Your task to perform on an android device: Go to notification settings Image 0: 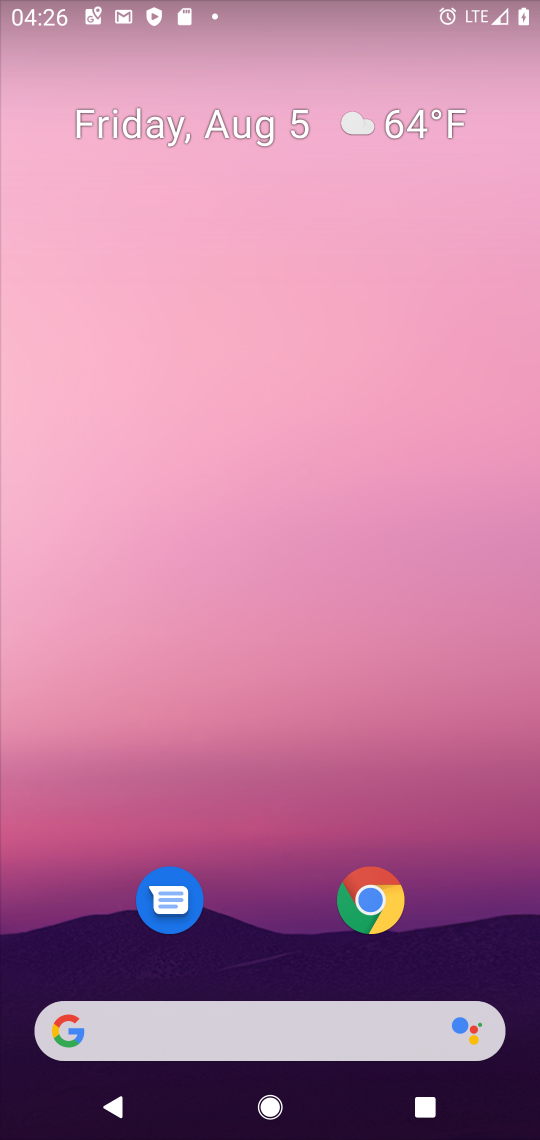
Step 0: drag from (269, 14) to (349, 932)
Your task to perform on an android device: Go to notification settings Image 1: 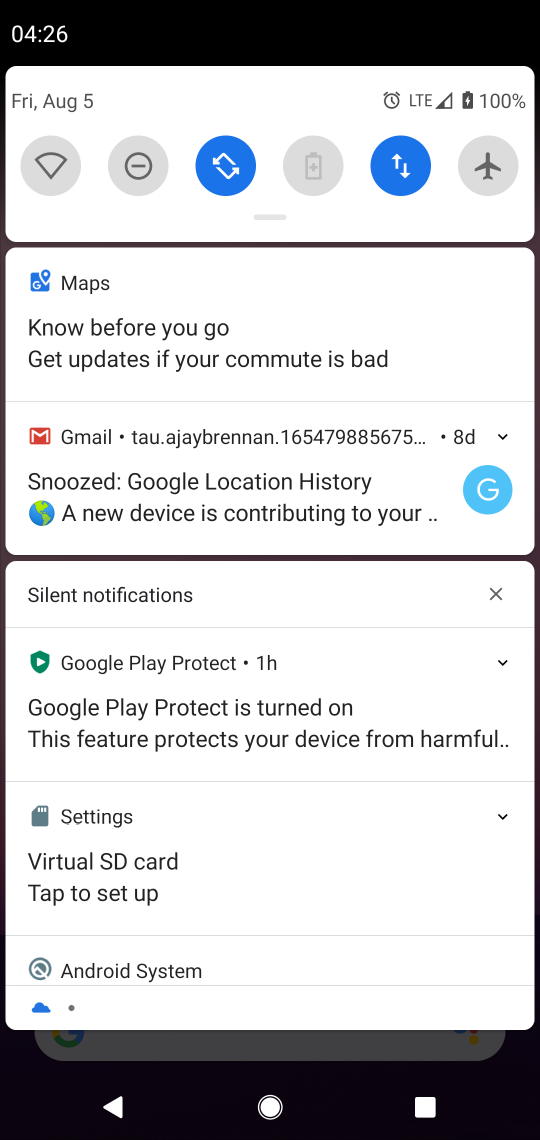
Step 1: drag from (284, 1074) to (416, 69)
Your task to perform on an android device: Go to notification settings Image 2: 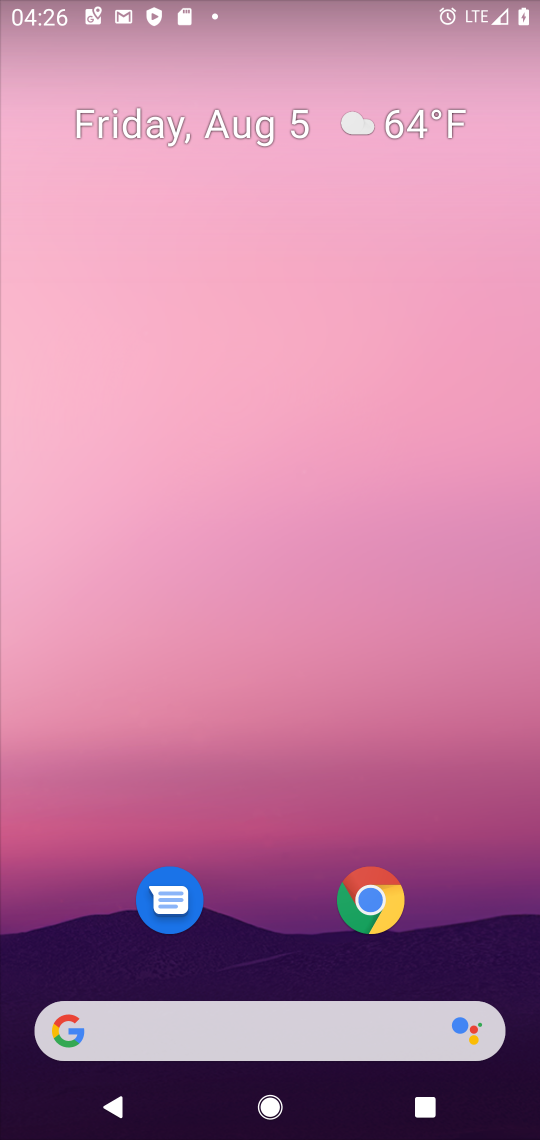
Step 2: drag from (263, 955) to (356, 20)
Your task to perform on an android device: Go to notification settings Image 3: 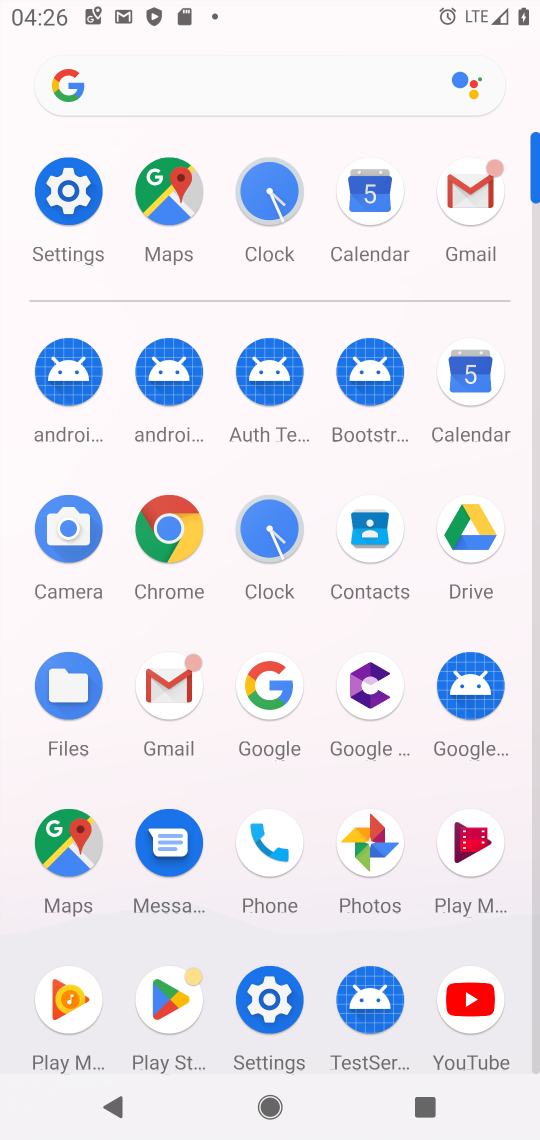
Step 3: click (60, 200)
Your task to perform on an android device: Go to notification settings Image 4: 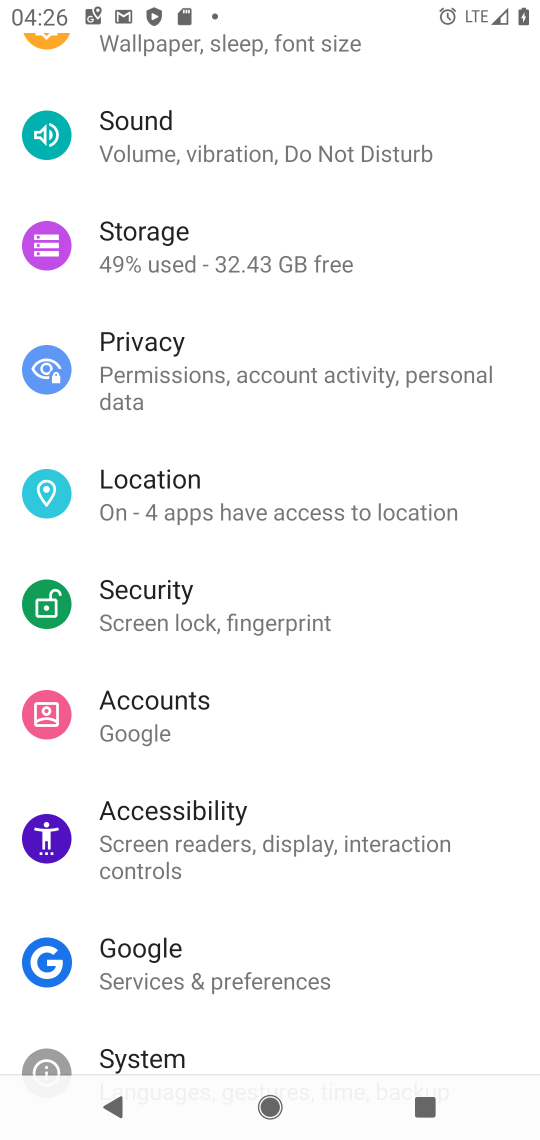
Step 4: drag from (339, 145) to (247, 1028)
Your task to perform on an android device: Go to notification settings Image 5: 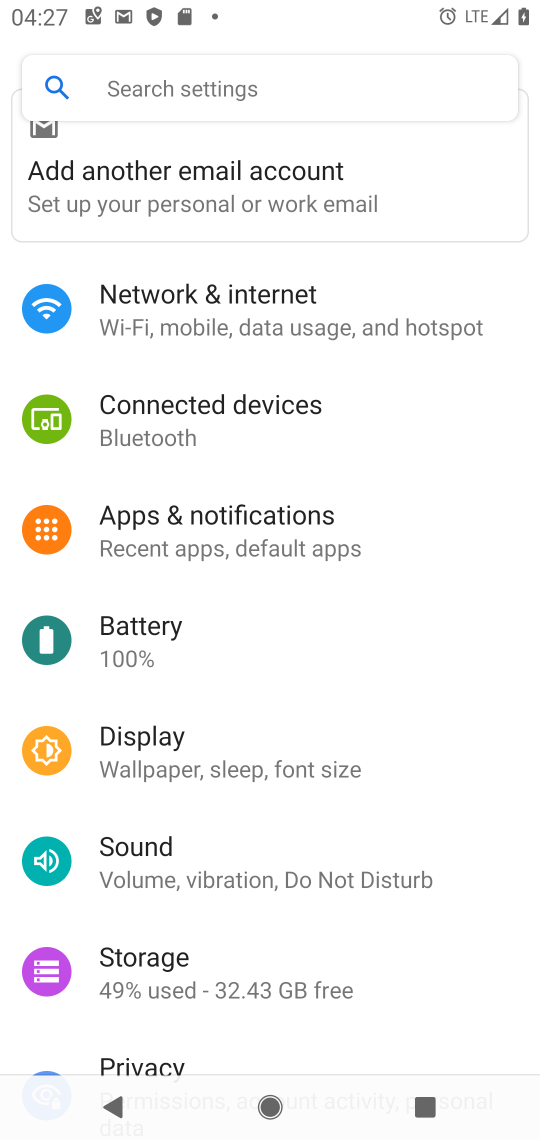
Step 5: click (189, 559)
Your task to perform on an android device: Go to notification settings Image 6: 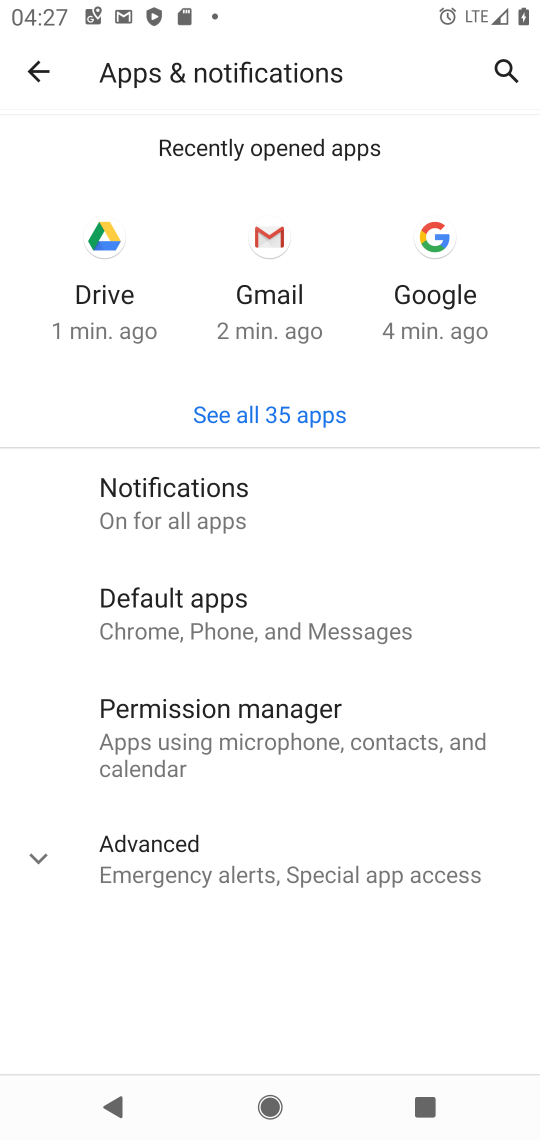
Step 6: task complete